Your task to perform on an android device: toggle priority inbox in the gmail app Image 0: 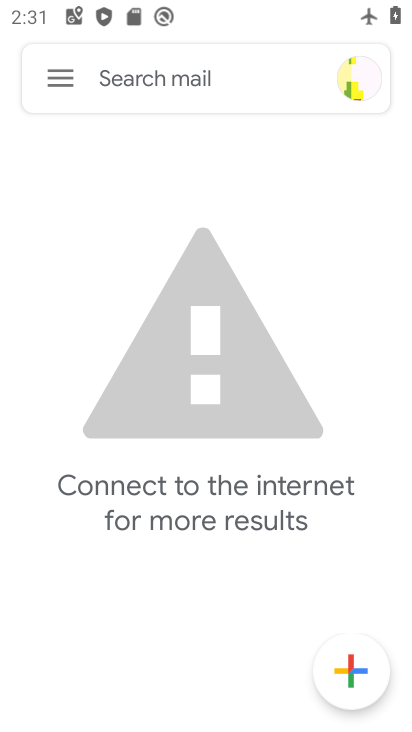
Step 0: click (57, 88)
Your task to perform on an android device: toggle priority inbox in the gmail app Image 1: 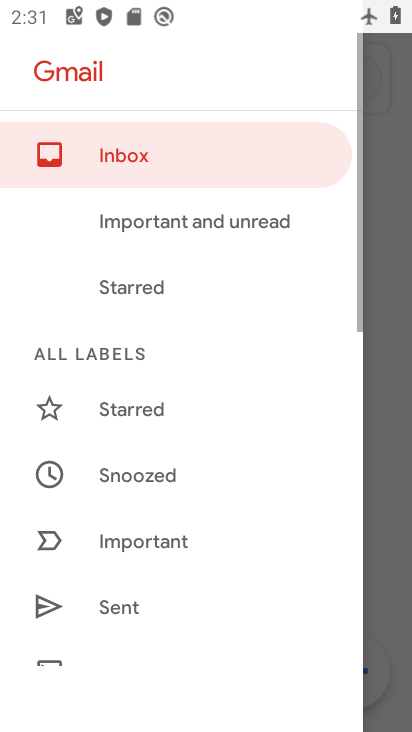
Step 1: drag from (114, 545) to (197, 190)
Your task to perform on an android device: toggle priority inbox in the gmail app Image 2: 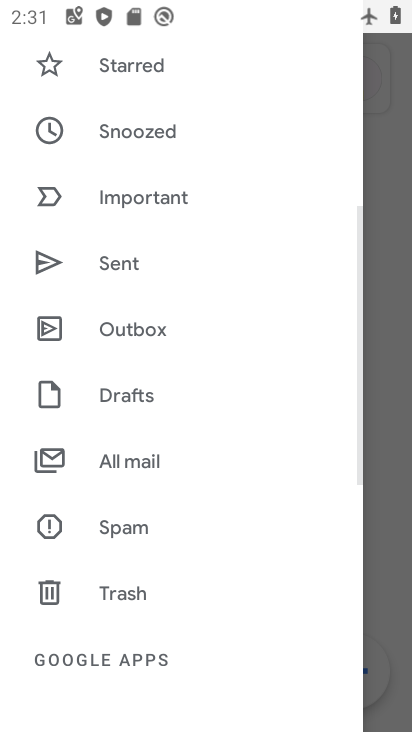
Step 2: drag from (199, 555) to (270, 164)
Your task to perform on an android device: toggle priority inbox in the gmail app Image 3: 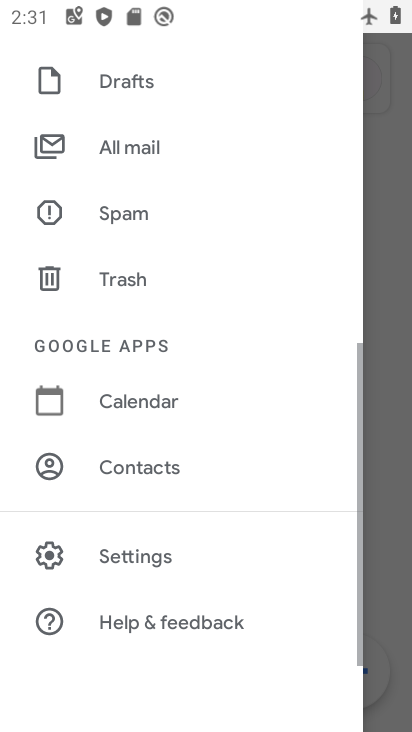
Step 3: click (143, 550)
Your task to perform on an android device: toggle priority inbox in the gmail app Image 4: 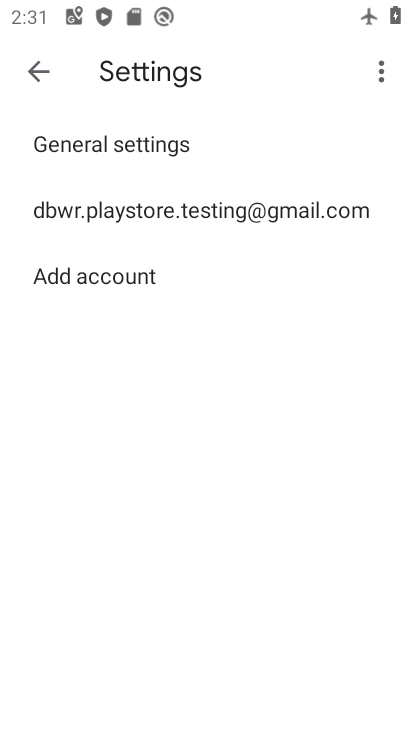
Step 4: click (86, 201)
Your task to perform on an android device: toggle priority inbox in the gmail app Image 5: 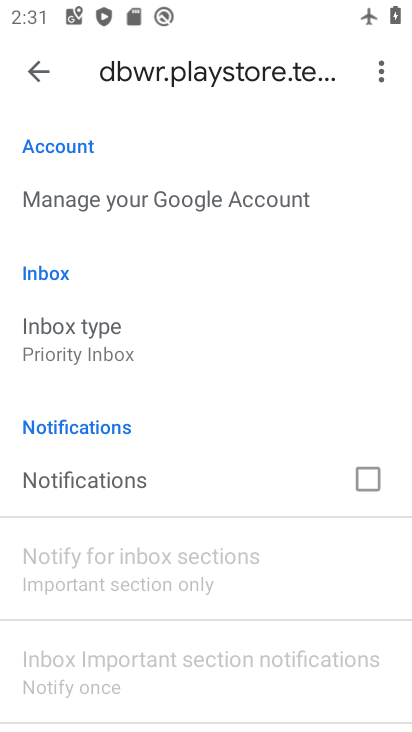
Step 5: click (78, 354)
Your task to perform on an android device: toggle priority inbox in the gmail app Image 6: 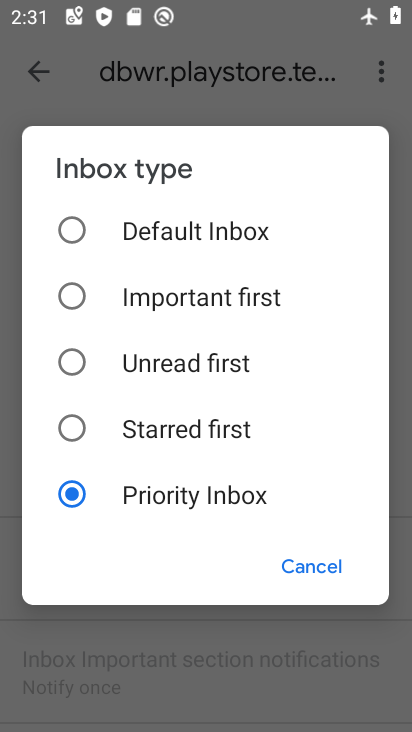
Step 6: click (72, 221)
Your task to perform on an android device: toggle priority inbox in the gmail app Image 7: 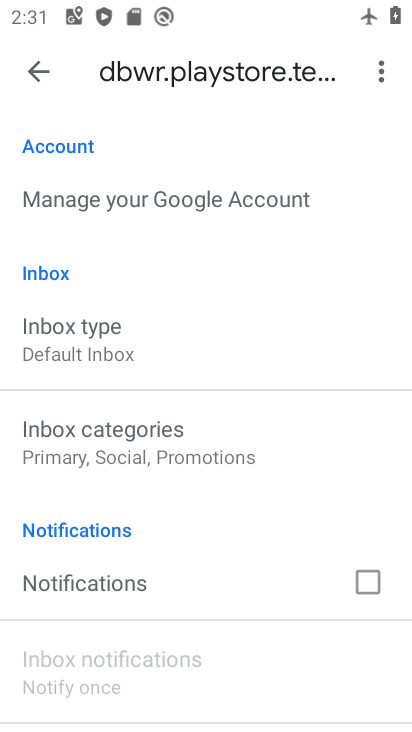
Step 7: task complete